Your task to perform on an android device: Open location settings Image 0: 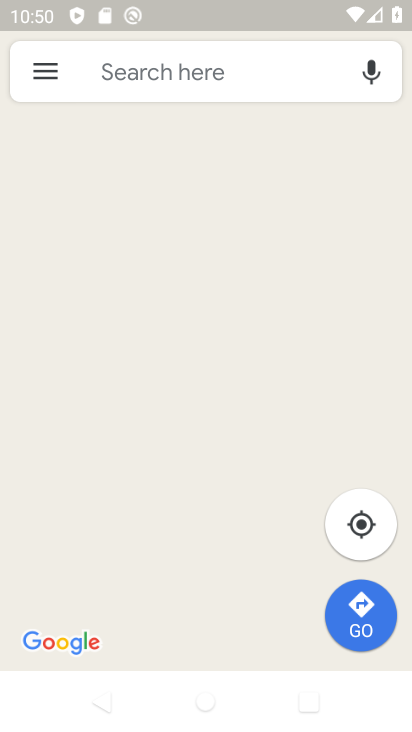
Step 0: click (241, 645)
Your task to perform on an android device: Open location settings Image 1: 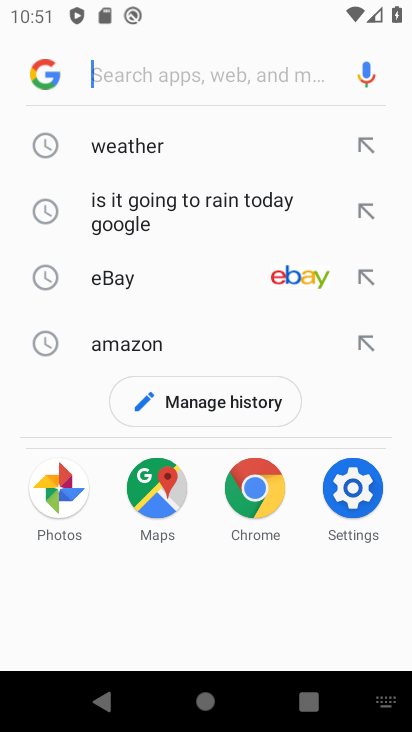
Step 1: press home button
Your task to perform on an android device: Open location settings Image 2: 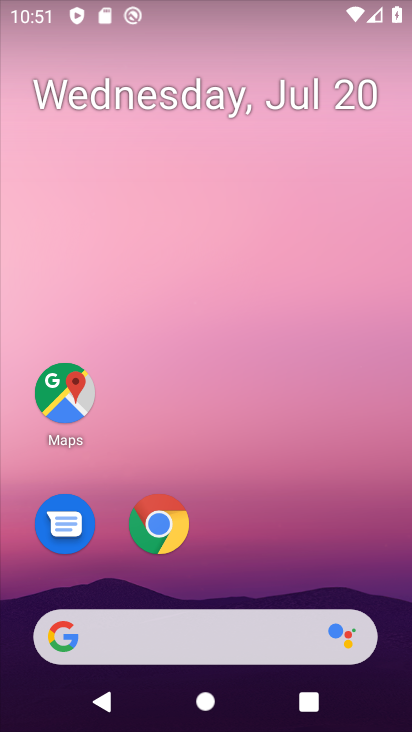
Step 2: drag from (264, 543) to (309, 35)
Your task to perform on an android device: Open location settings Image 3: 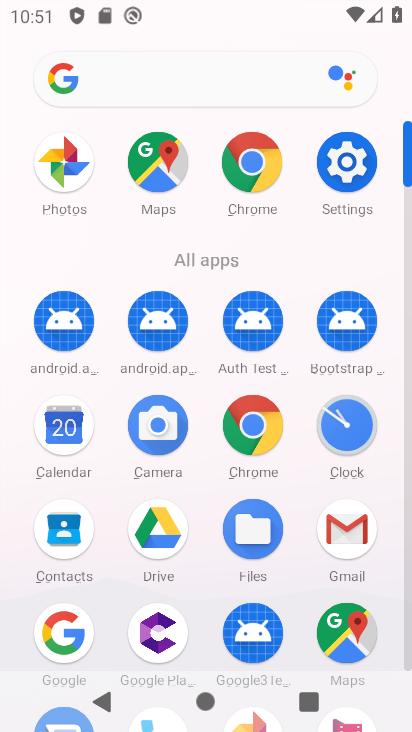
Step 3: click (345, 170)
Your task to perform on an android device: Open location settings Image 4: 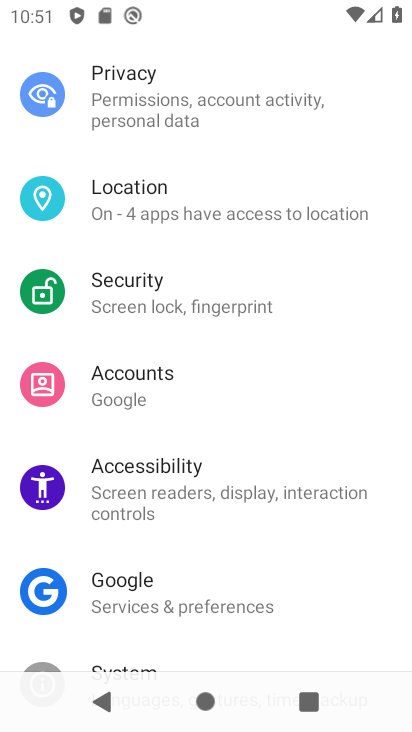
Step 4: click (247, 209)
Your task to perform on an android device: Open location settings Image 5: 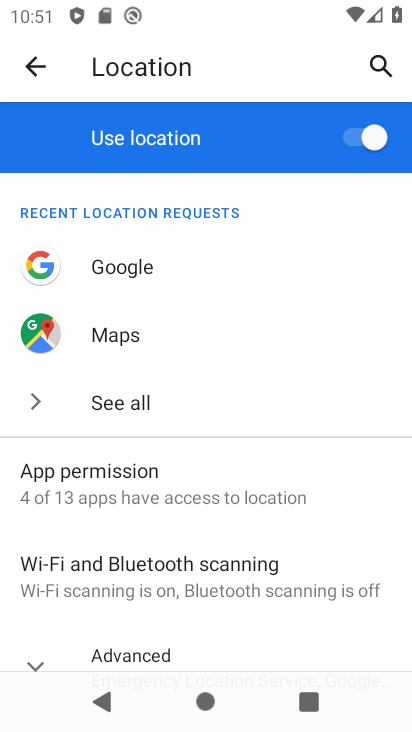
Step 5: task complete